Your task to perform on an android device: Open location settings Image 0: 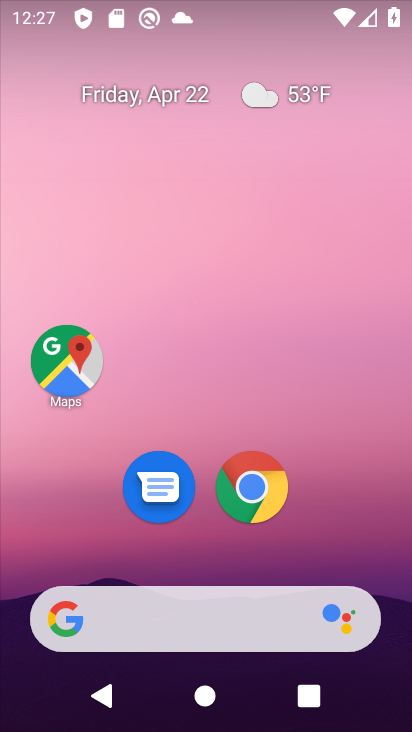
Step 0: click (275, 139)
Your task to perform on an android device: Open location settings Image 1: 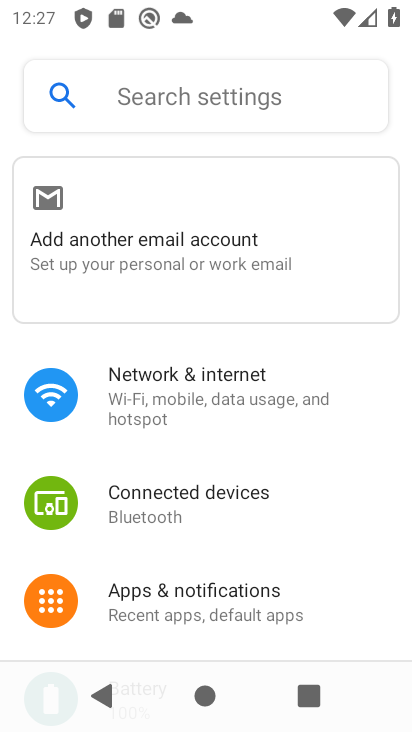
Step 1: drag from (233, 516) to (286, 121)
Your task to perform on an android device: Open location settings Image 2: 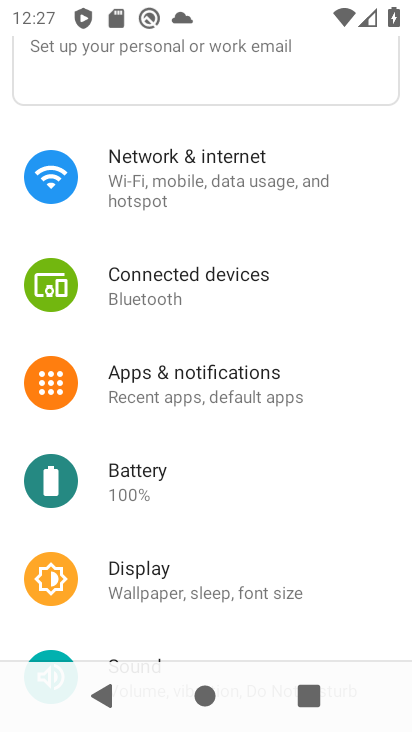
Step 2: drag from (274, 386) to (295, 192)
Your task to perform on an android device: Open location settings Image 3: 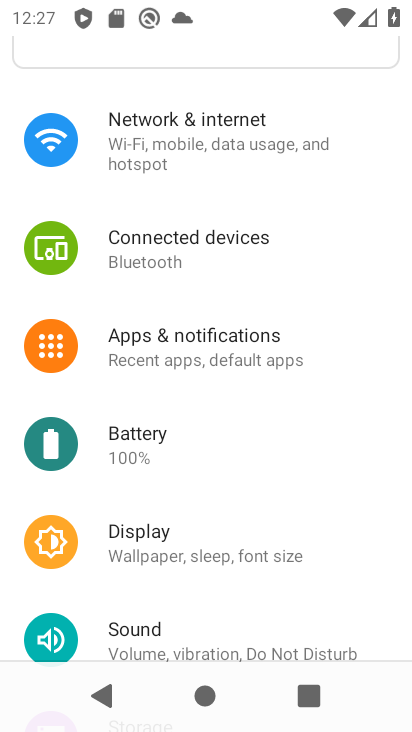
Step 3: drag from (245, 468) to (277, 207)
Your task to perform on an android device: Open location settings Image 4: 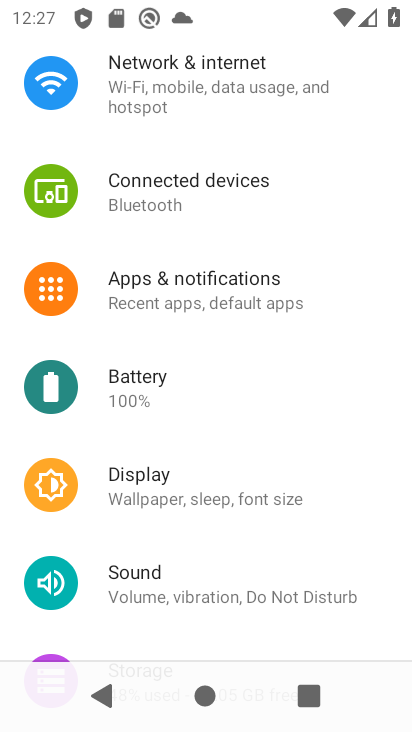
Step 4: drag from (252, 460) to (244, 173)
Your task to perform on an android device: Open location settings Image 5: 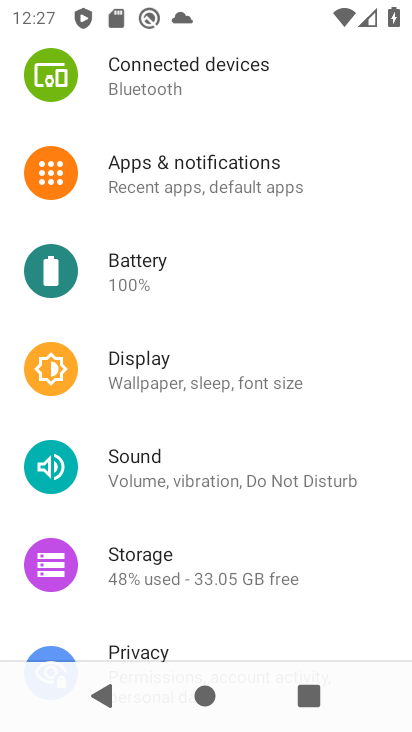
Step 5: drag from (244, 557) to (311, 119)
Your task to perform on an android device: Open location settings Image 6: 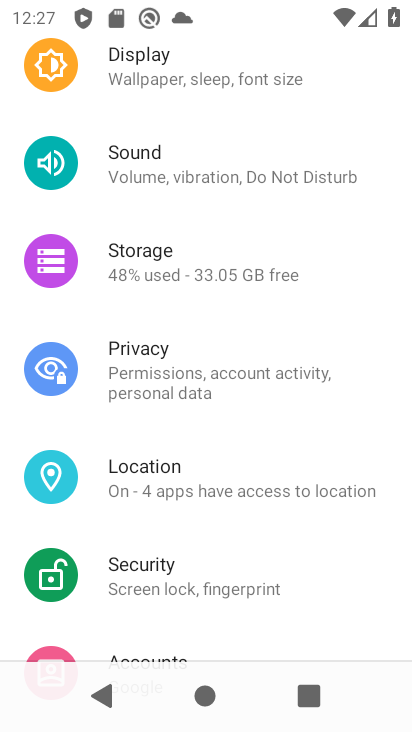
Step 6: click (186, 492)
Your task to perform on an android device: Open location settings Image 7: 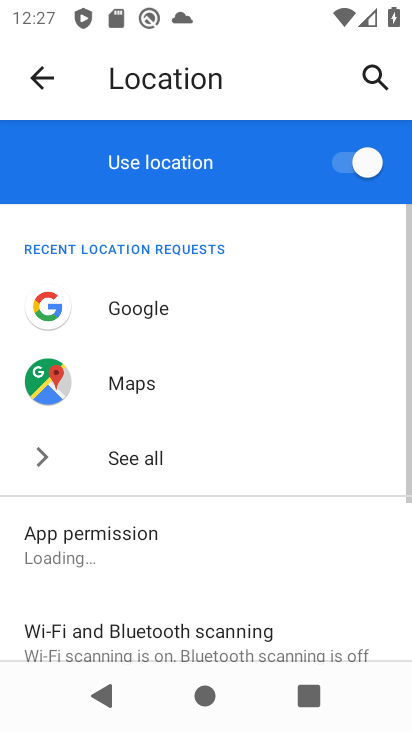
Step 7: task complete